Your task to perform on an android device: turn on sleep mode Image 0: 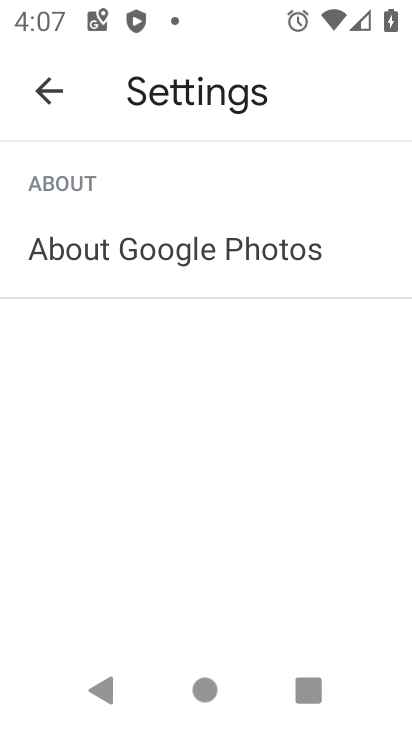
Step 0: press home button
Your task to perform on an android device: turn on sleep mode Image 1: 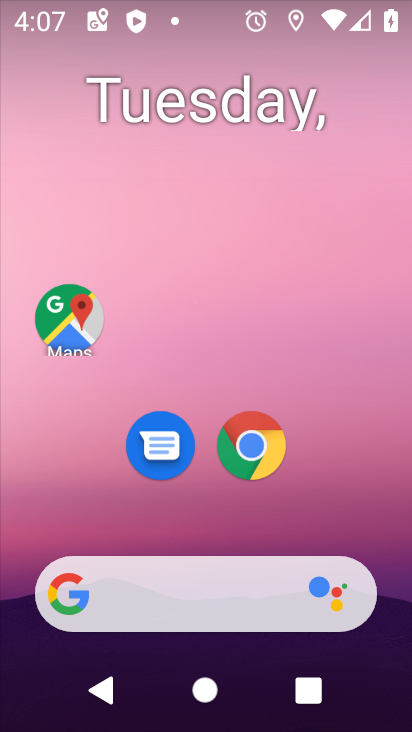
Step 1: drag from (225, 609) to (253, 72)
Your task to perform on an android device: turn on sleep mode Image 2: 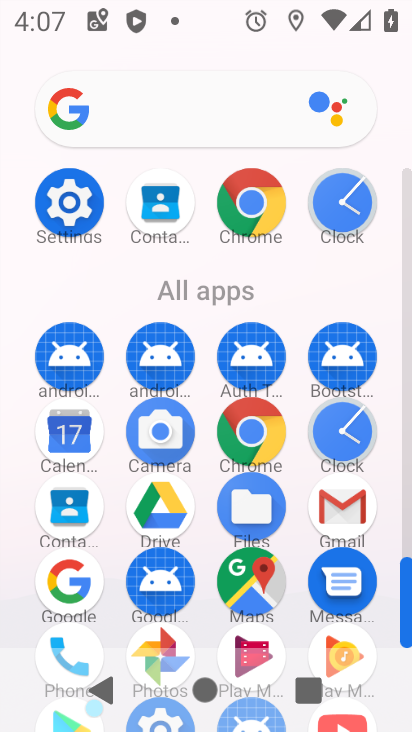
Step 2: click (79, 219)
Your task to perform on an android device: turn on sleep mode Image 3: 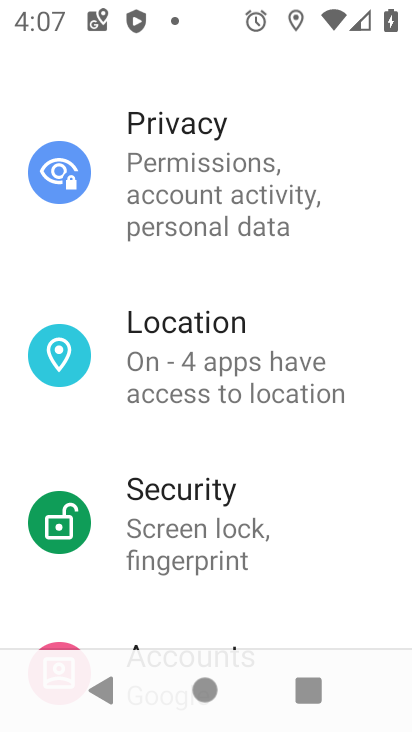
Step 3: drag from (251, 179) to (270, 623)
Your task to perform on an android device: turn on sleep mode Image 4: 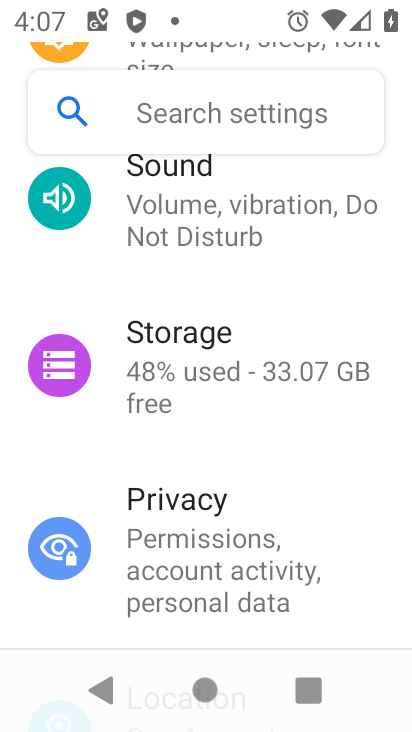
Step 4: drag from (198, 232) to (263, 653)
Your task to perform on an android device: turn on sleep mode Image 5: 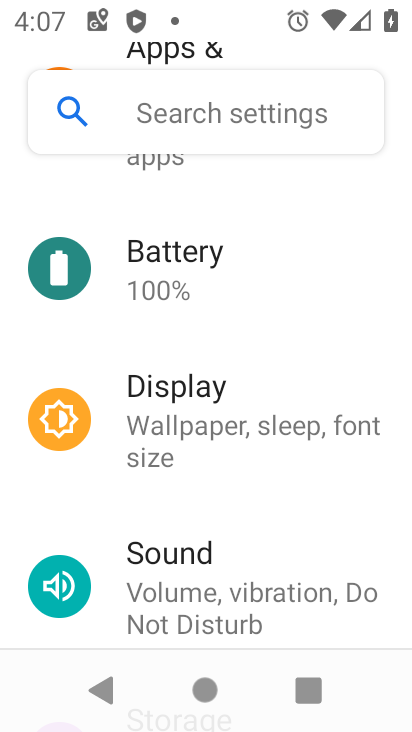
Step 5: click (199, 407)
Your task to perform on an android device: turn on sleep mode Image 6: 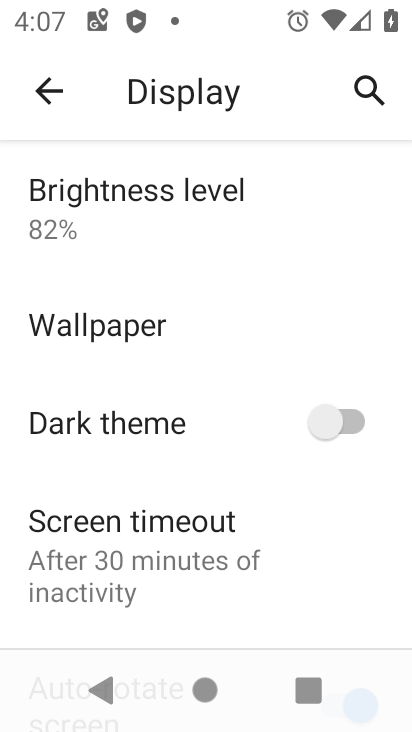
Step 6: task complete